Your task to perform on an android device: change alarm snooze length Image 0: 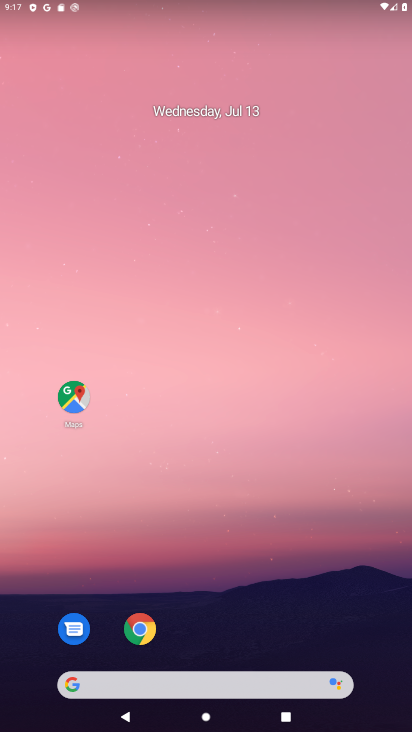
Step 0: drag from (271, 627) to (278, 175)
Your task to perform on an android device: change alarm snooze length Image 1: 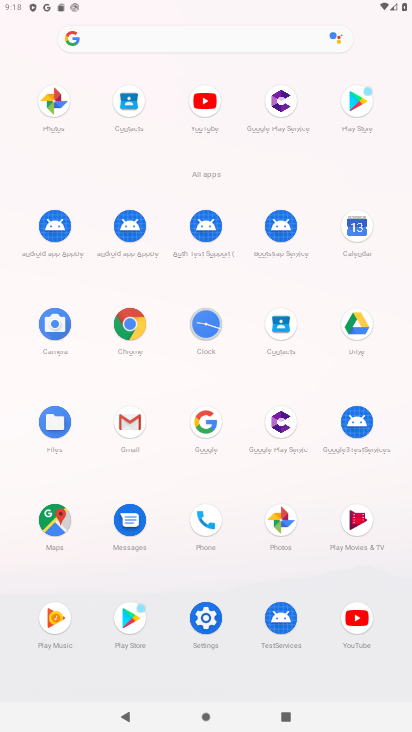
Step 1: click (216, 323)
Your task to perform on an android device: change alarm snooze length Image 2: 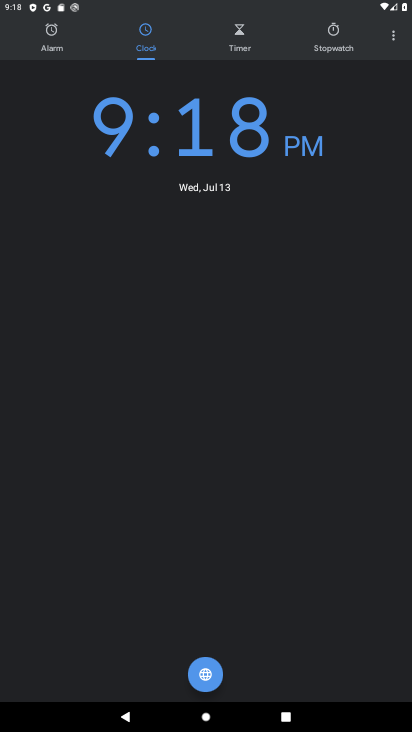
Step 2: click (394, 44)
Your task to perform on an android device: change alarm snooze length Image 3: 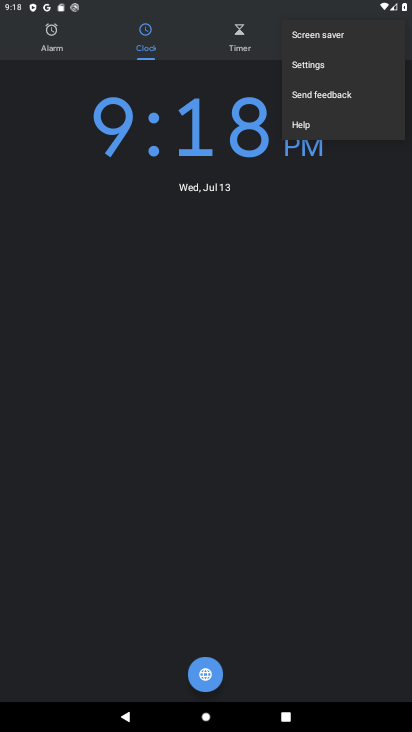
Step 3: click (338, 68)
Your task to perform on an android device: change alarm snooze length Image 4: 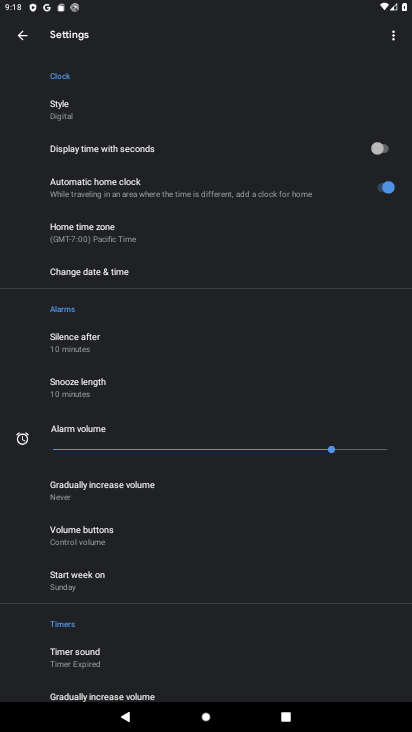
Step 4: click (146, 377)
Your task to perform on an android device: change alarm snooze length Image 5: 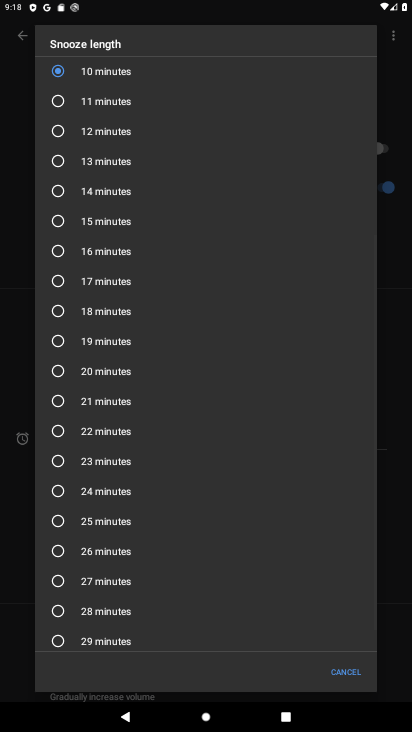
Step 5: click (146, 377)
Your task to perform on an android device: change alarm snooze length Image 6: 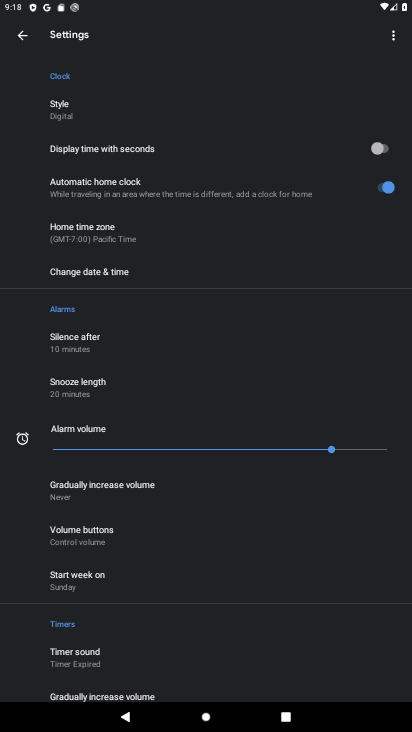
Step 6: task complete